Your task to perform on an android device: Go to accessibility settings Image 0: 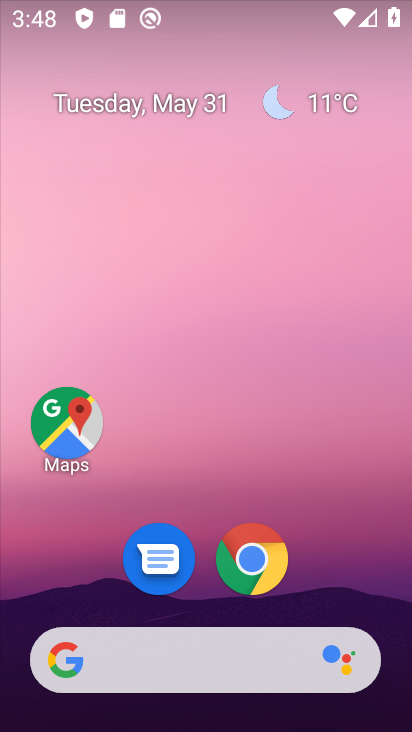
Step 0: drag from (316, 601) to (317, 27)
Your task to perform on an android device: Go to accessibility settings Image 1: 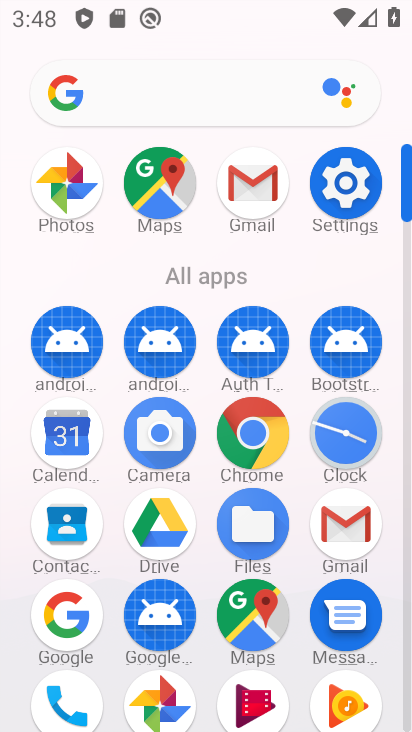
Step 1: click (345, 172)
Your task to perform on an android device: Go to accessibility settings Image 2: 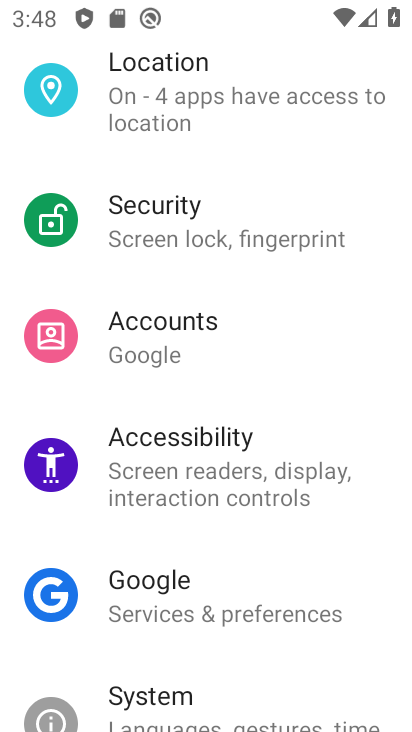
Step 2: drag from (249, 645) to (275, 163)
Your task to perform on an android device: Go to accessibility settings Image 3: 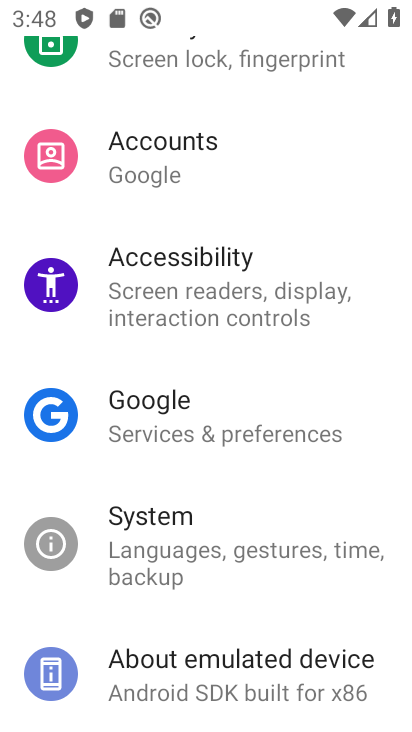
Step 3: drag from (209, 682) to (193, 283)
Your task to perform on an android device: Go to accessibility settings Image 4: 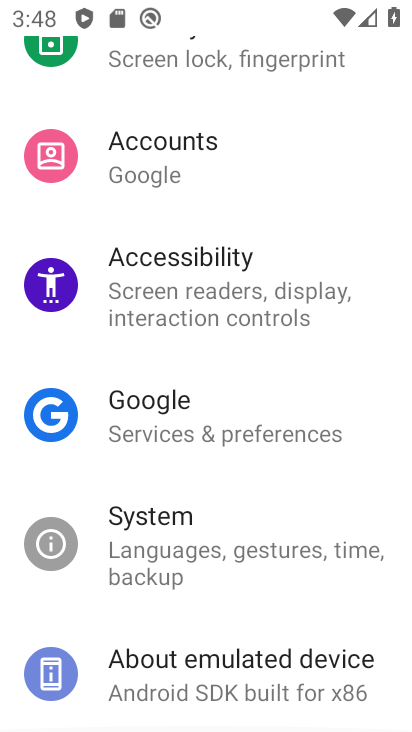
Step 4: click (147, 268)
Your task to perform on an android device: Go to accessibility settings Image 5: 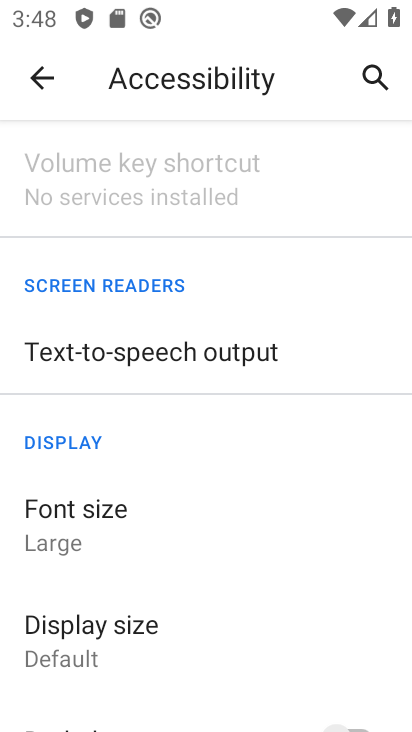
Step 5: task complete